Your task to perform on an android device: turn pop-ups on in chrome Image 0: 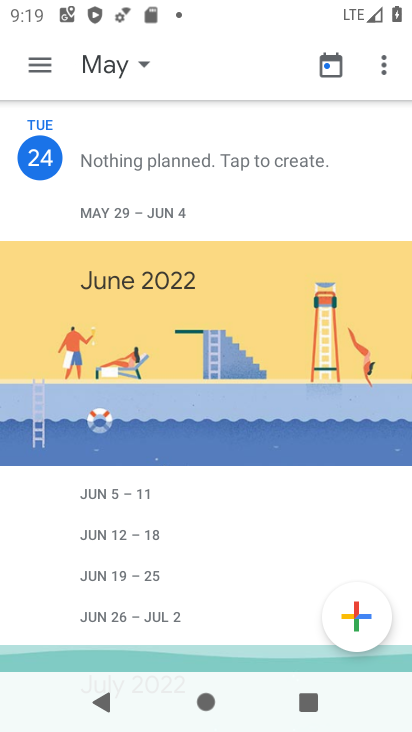
Step 0: press home button
Your task to perform on an android device: turn pop-ups on in chrome Image 1: 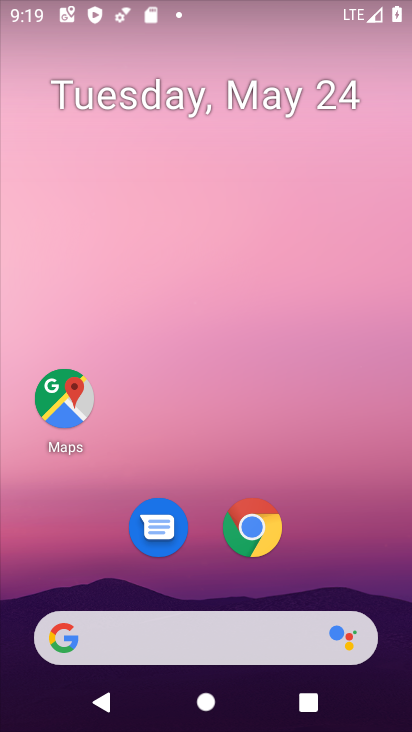
Step 1: click (256, 543)
Your task to perform on an android device: turn pop-ups on in chrome Image 2: 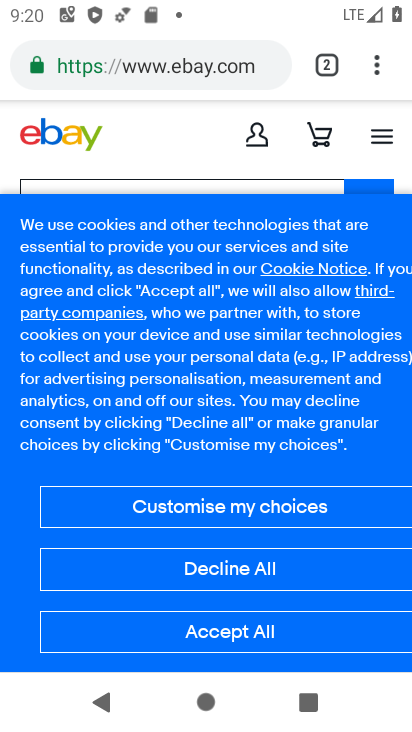
Step 2: click (377, 60)
Your task to perform on an android device: turn pop-ups on in chrome Image 3: 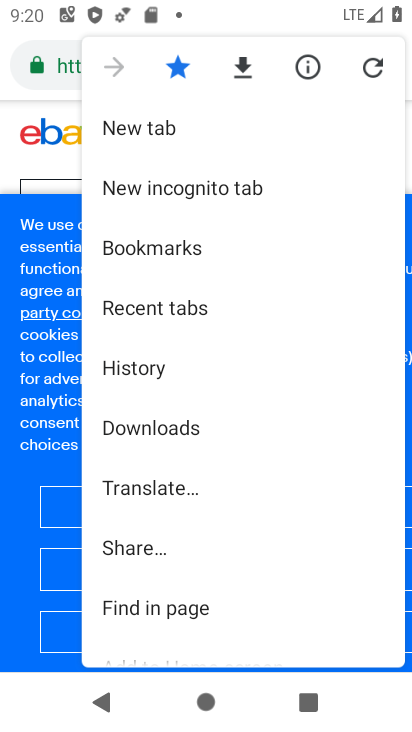
Step 3: drag from (212, 561) to (268, 13)
Your task to perform on an android device: turn pop-ups on in chrome Image 4: 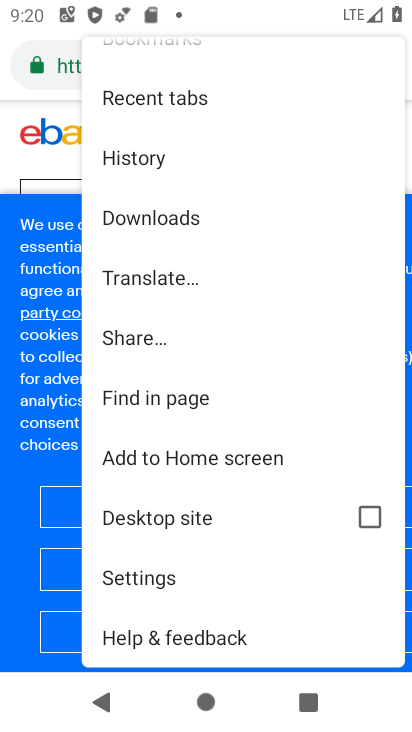
Step 4: click (152, 571)
Your task to perform on an android device: turn pop-ups on in chrome Image 5: 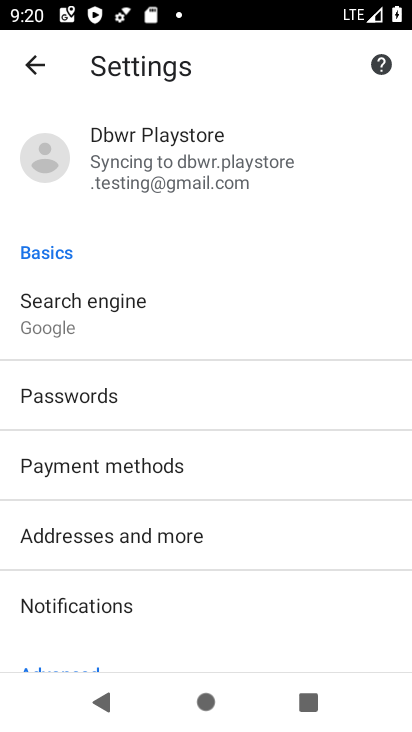
Step 5: drag from (147, 583) to (184, 128)
Your task to perform on an android device: turn pop-ups on in chrome Image 6: 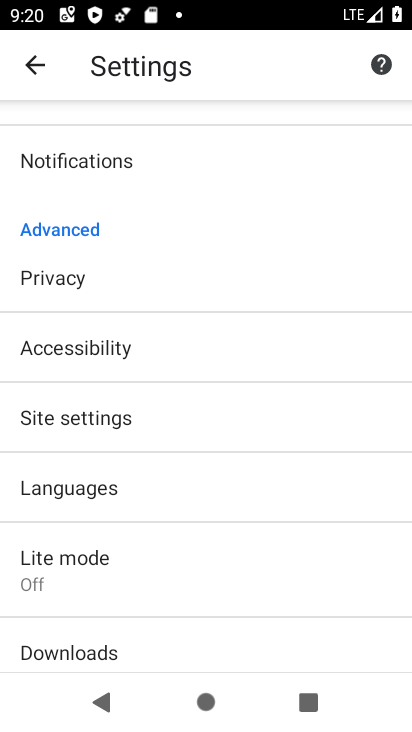
Step 6: click (137, 412)
Your task to perform on an android device: turn pop-ups on in chrome Image 7: 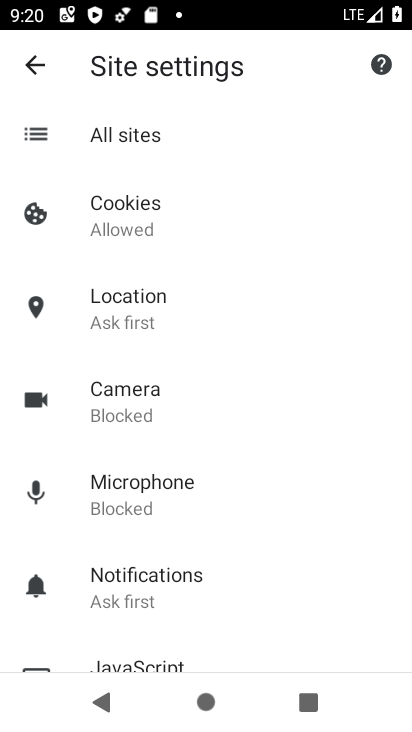
Step 7: drag from (189, 683) to (199, 351)
Your task to perform on an android device: turn pop-ups on in chrome Image 8: 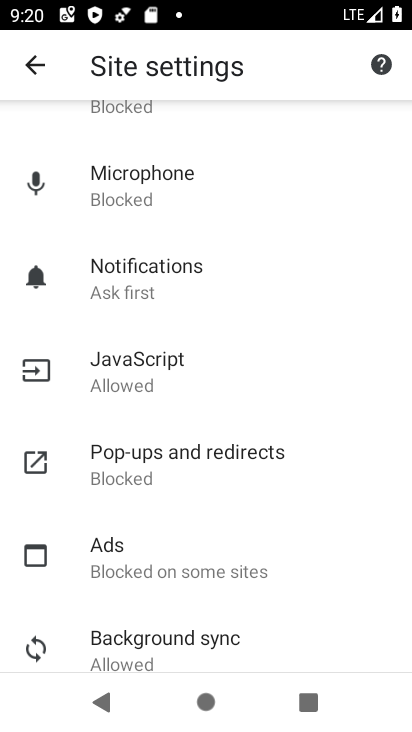
Step 8: click (164, 471)
Your task to perform on an android device: turn pop-ups on in chrome Image 9: 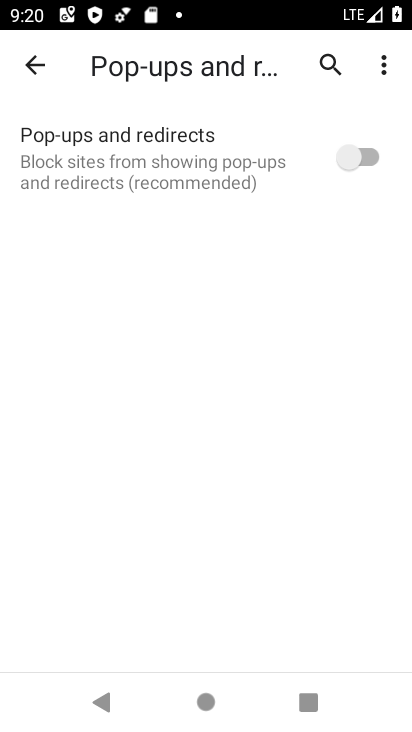
Step 9: click (351, 148)
Your task to perform on an android device: turn pop-ups on in chrome Image 10: 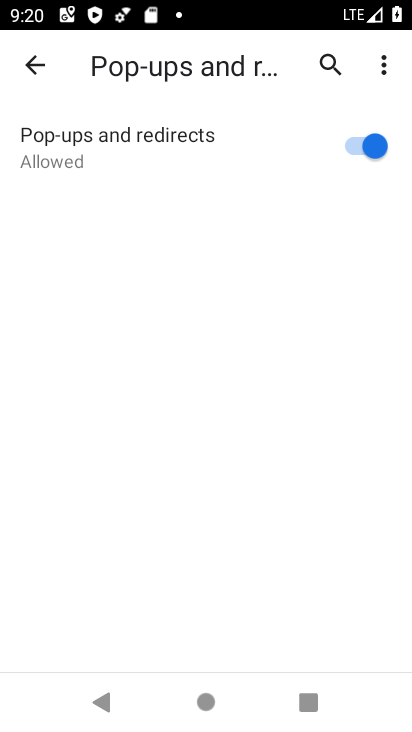
Step 10: task complete